Your task to perform on an android device: set the stopwatch Image 0: 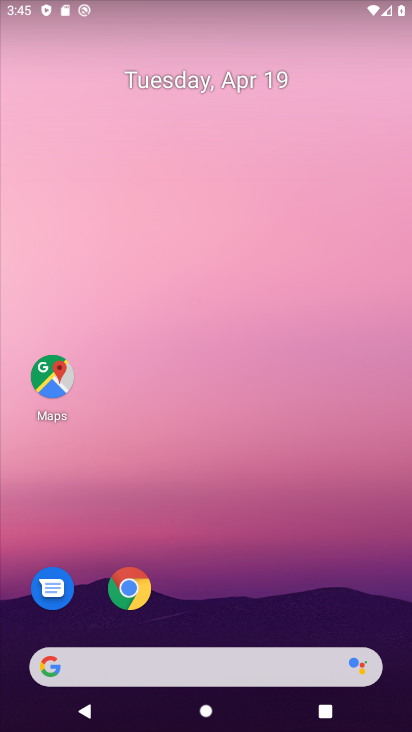
Step 0: drag from (213, 59) to (198, 8)
Your task to perform on an android device: set the stopwatch Image 1: 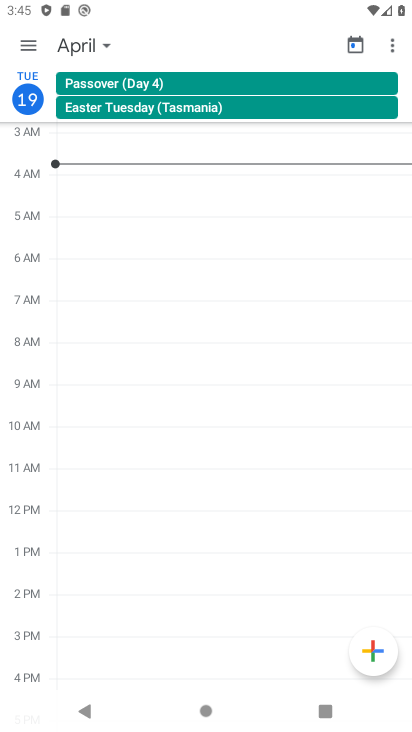
Step 1: press home button
Your task to perform on an android device: set the stopwatch Image 2: 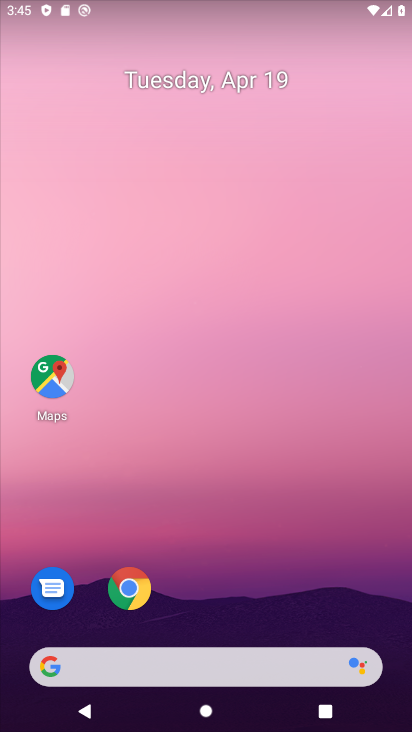
Step 2: drag from (222, 583) to (147, 37)
Your task to perform on an android device: set the stopwatch Image 3: 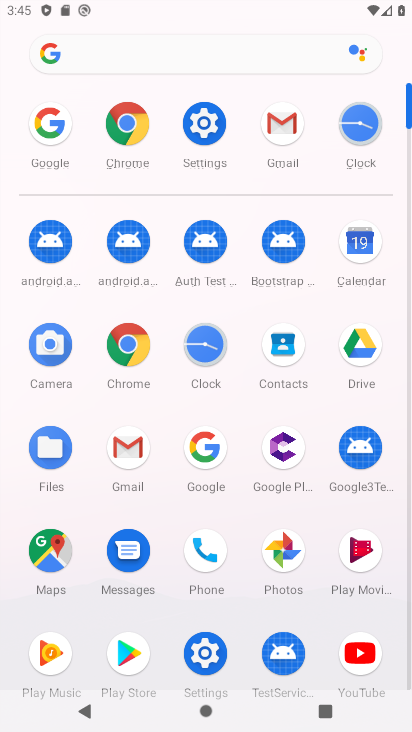
Step 3: click (366, 129)
Your task to perform on an android device: set the stopwatch Image 4: 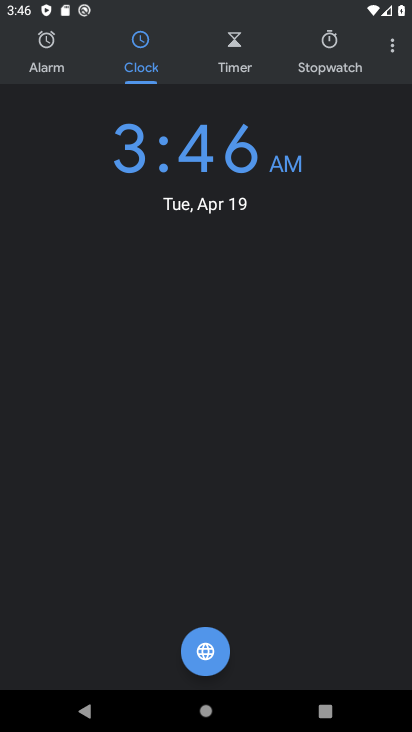
Step 4: click (323, 58)
Your task to perform on an android device: set the stopwatch Image 5: 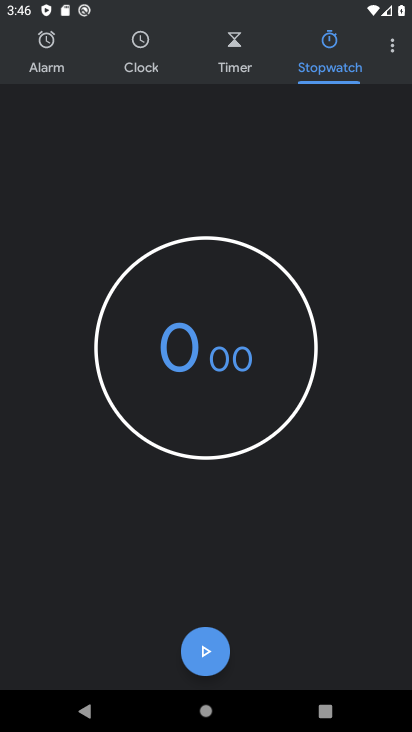
Step 5: click (222, 642)
Your task to perform on an android device: set the stopwatch Image 6: 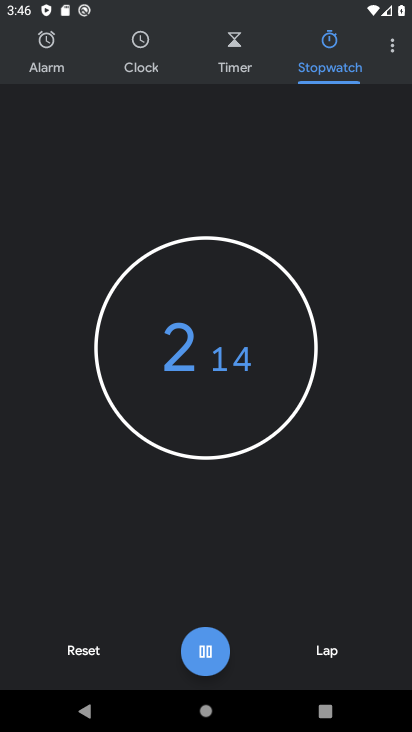
Step 6: task complete